Your task to perform on an android device: Go to wifi settings Image 0: 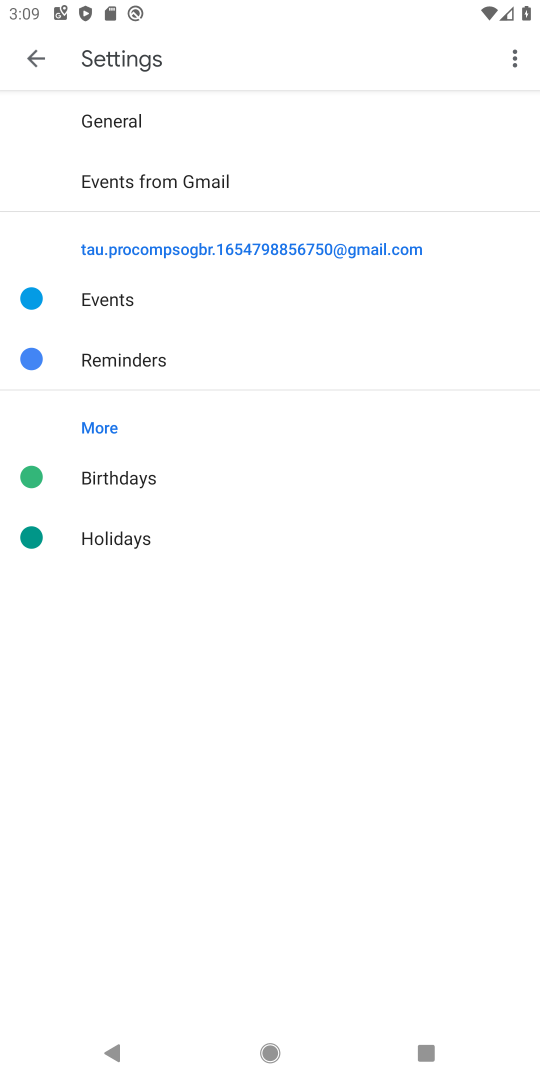
Step 0: press home button
Your task to perform on an android device: Go to wifi settings Image 1: 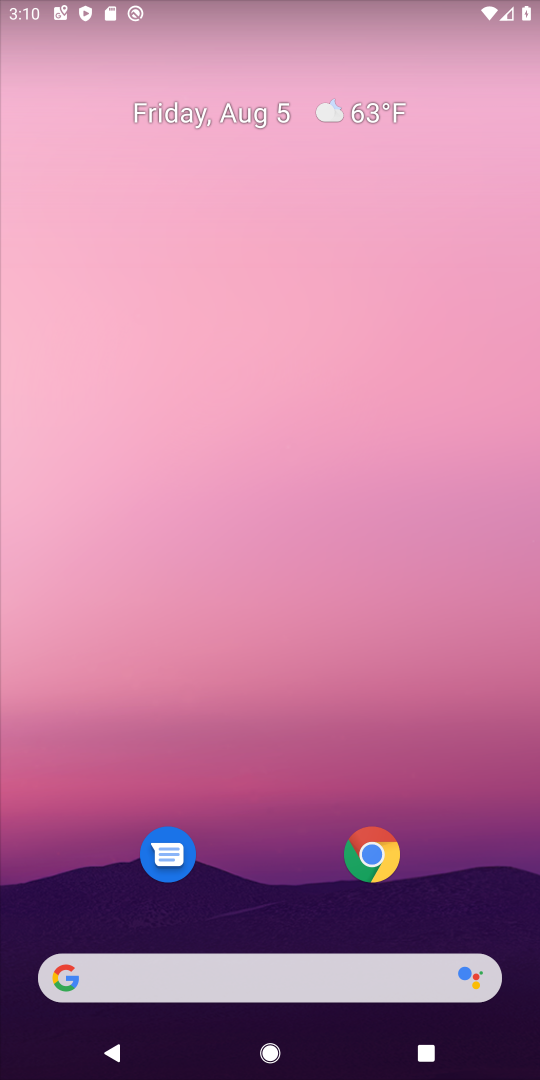
Step 1: drag from (87, 1056) to (441, 215)
Your task to perform on an android device: Go to wifi settings Image 2: 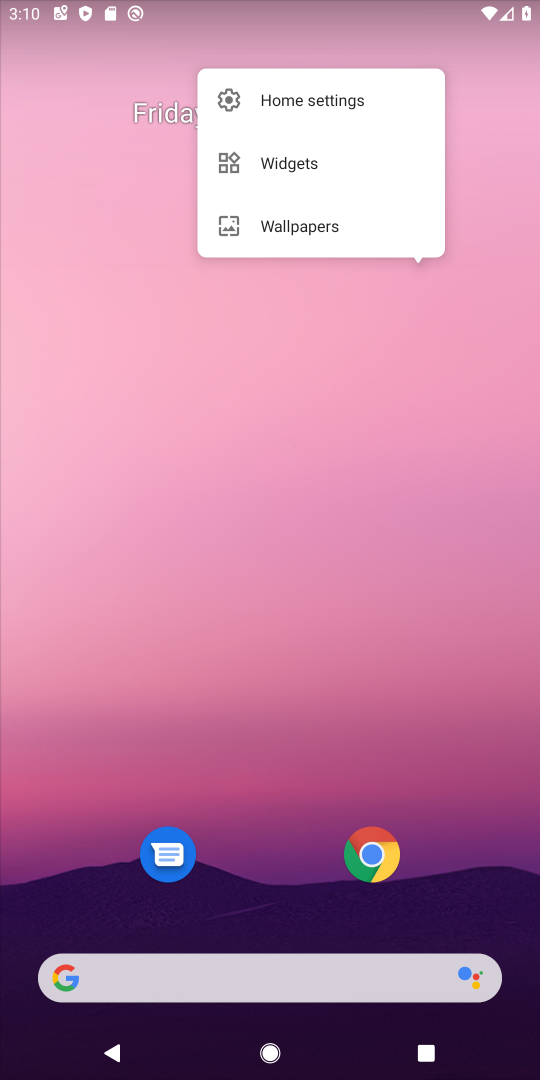
Step 2: drag from (39, 1013) to (34, 407)
Your task to perform on an android device: Go to wifi settings Image 3: 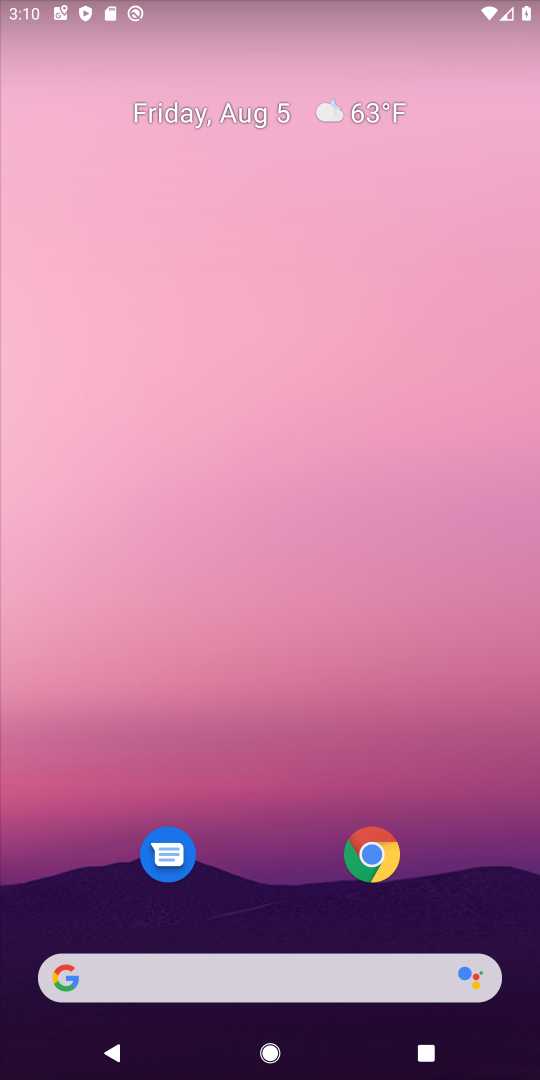
Step 3: drag from (305, 323) to (436, 44)
Your task to perform on an android device: Go to wifi settings Image 4: 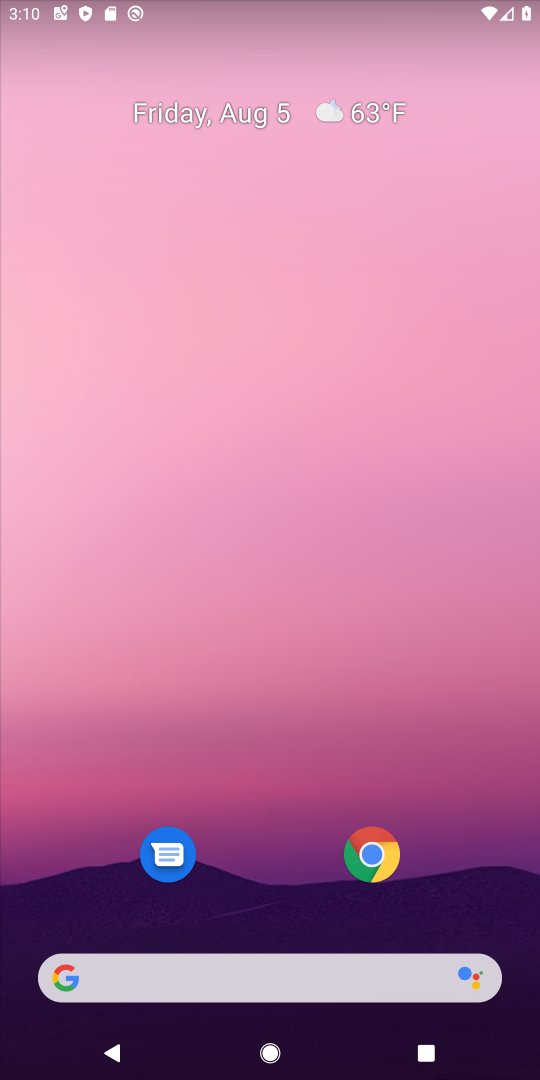
Step 4: drag from (85, 1011) to (452, 173)
Your task to perform on an android device: Go to wifi settings Image 5: 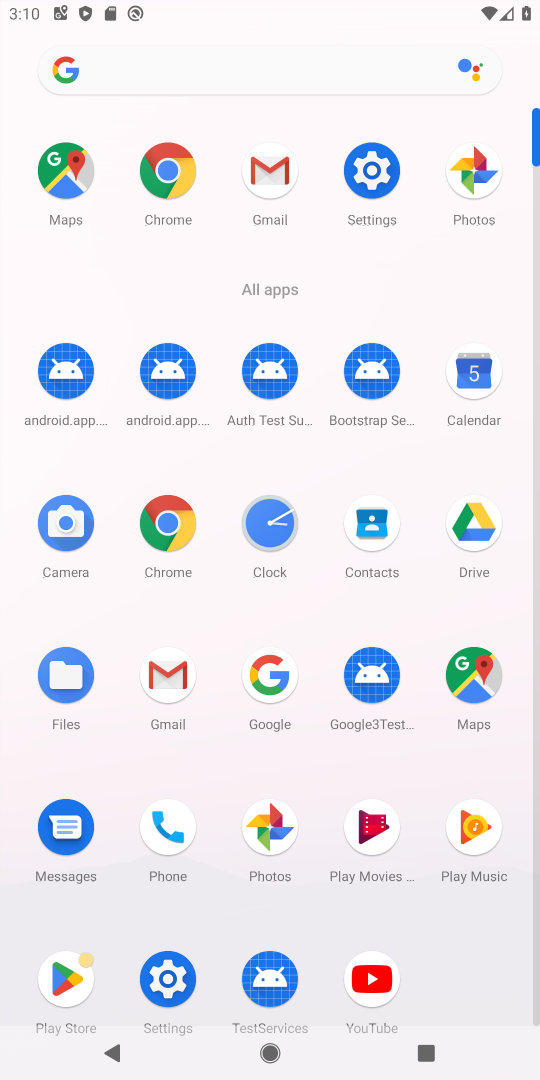
Step 5: click (397, 171)
Your task to perform on an android device: Go to wifi settings Image 6: 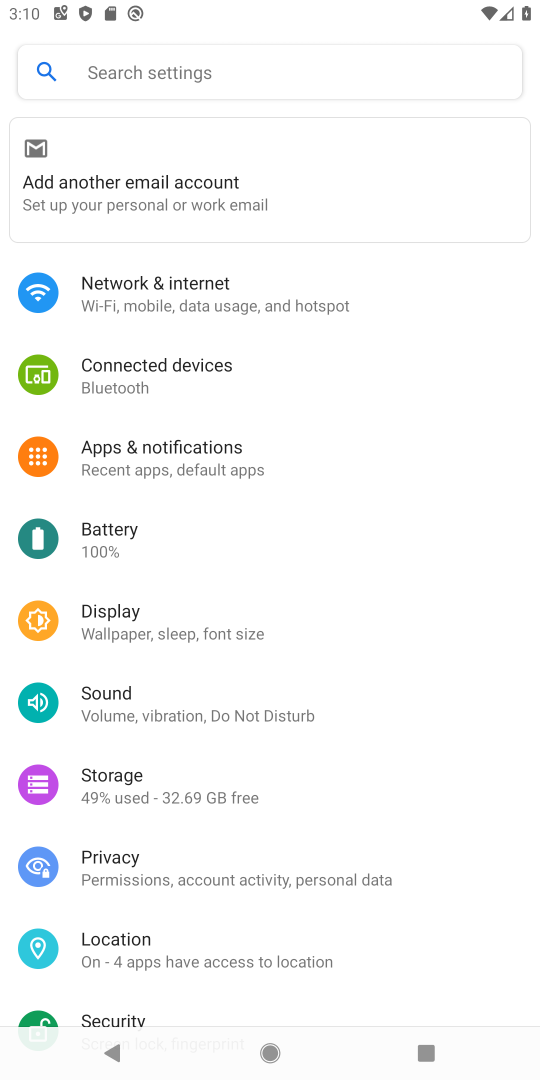
Step 6: click (107, 297)
Your task to perform on an android device: Go to wifi settings Image 7: 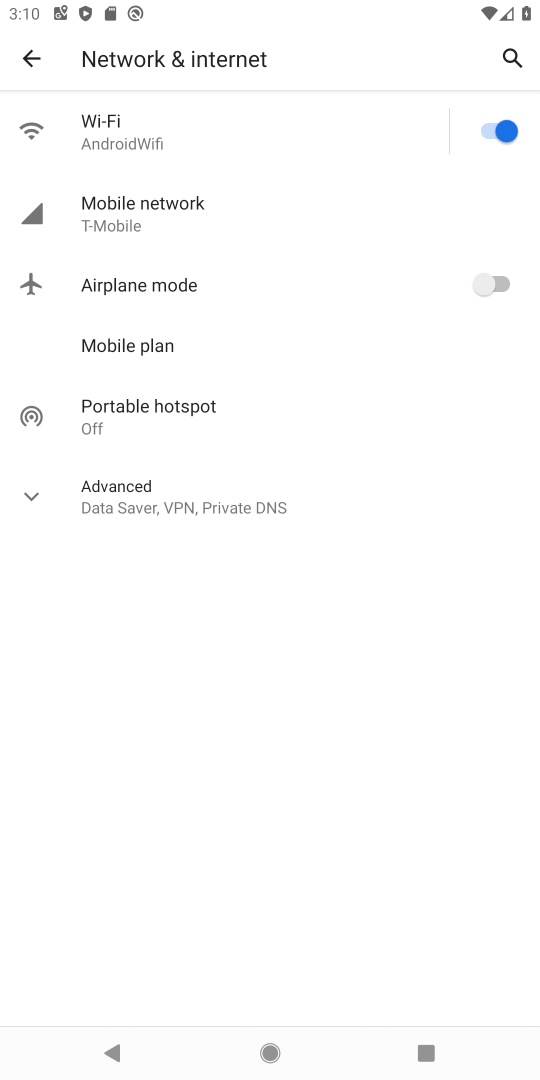
Step 7: task complete